Your task to perform on an android device: Open a new Chrome incognito tab Image 0: 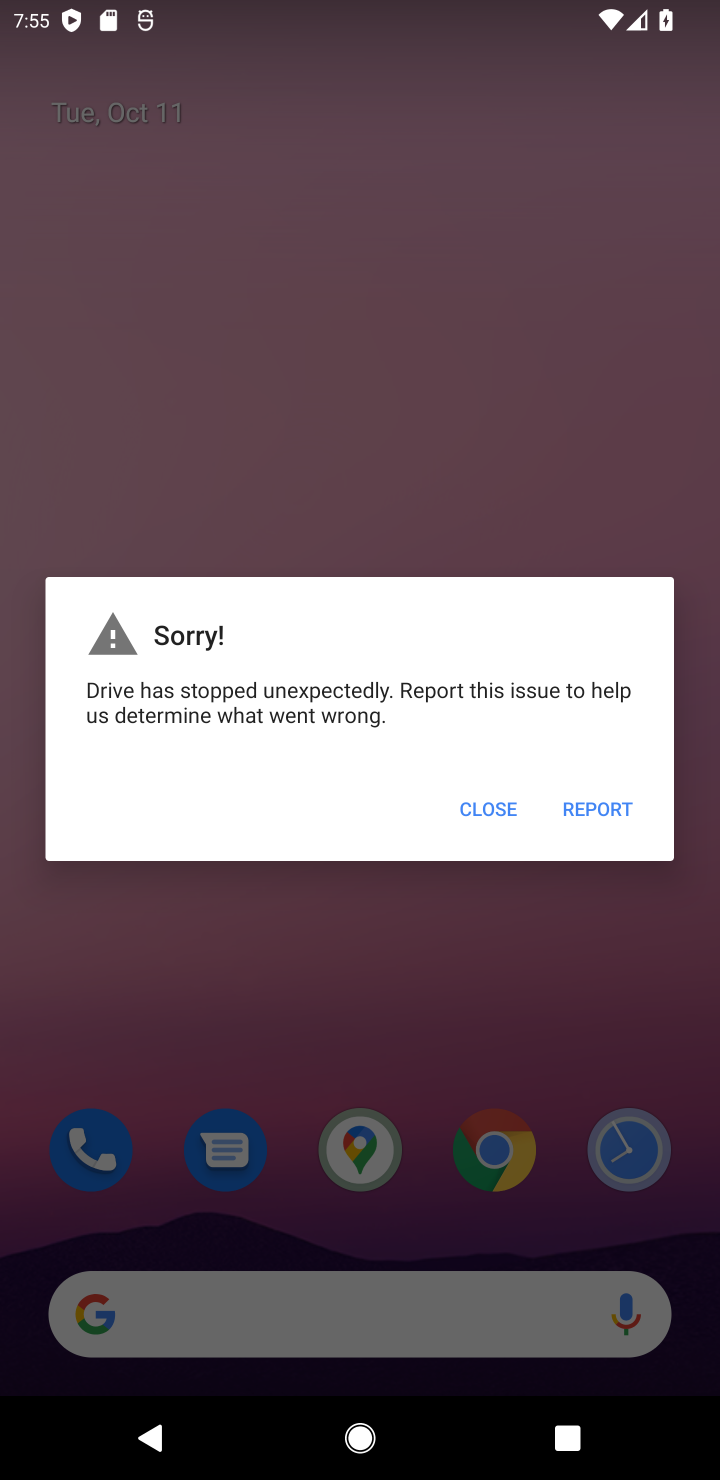
Step 0: press home button
Your task to perform on an android device: Open a new Chrome incognito tab Image 1: 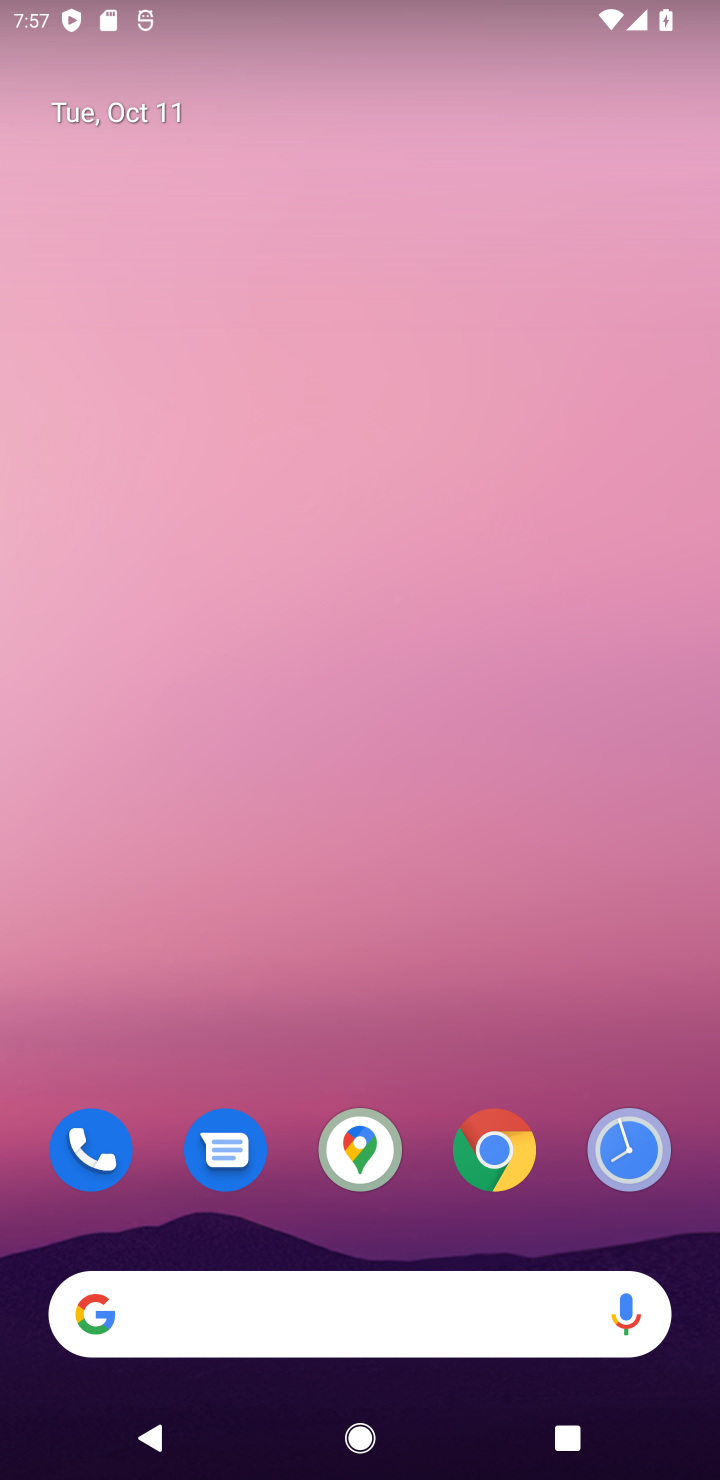
Step 1: click (504, 1142)
Your task to perform on an android device: Open a new Chrome incognito tab Image 2: 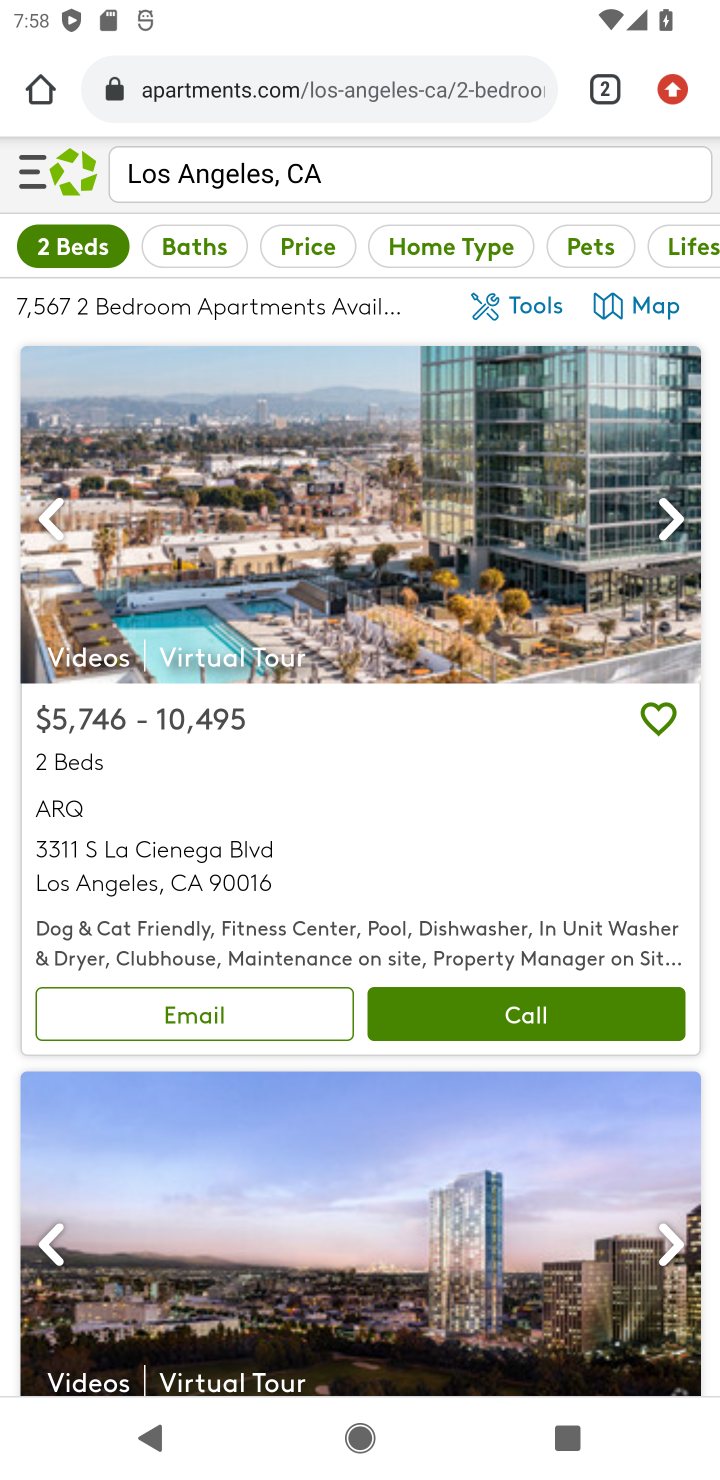
Step 2: click (669, 84)
Your task to perform on an android device: Open a new Chrome incognito tab Image 3: 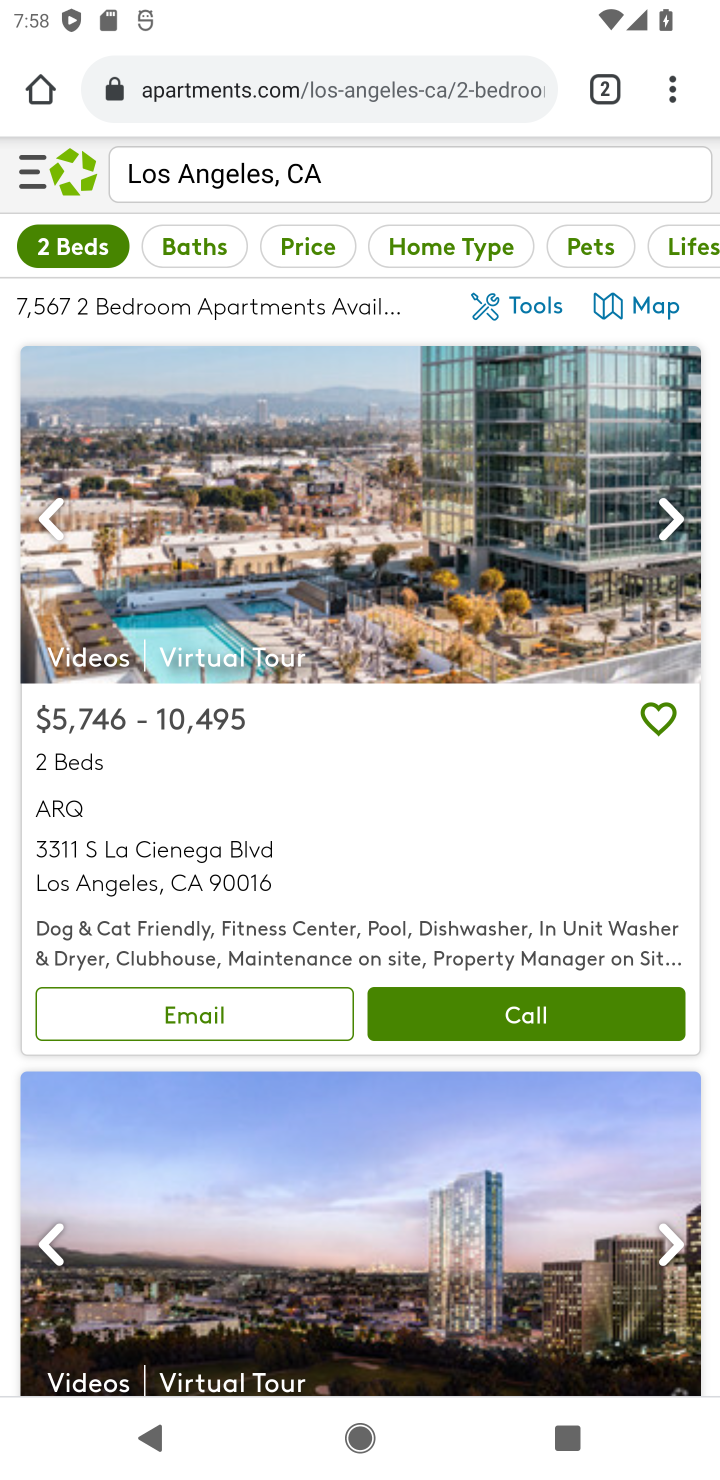
Step 3: task complete